Your task to perform on an android device: Toggle the flashlight Image 0: 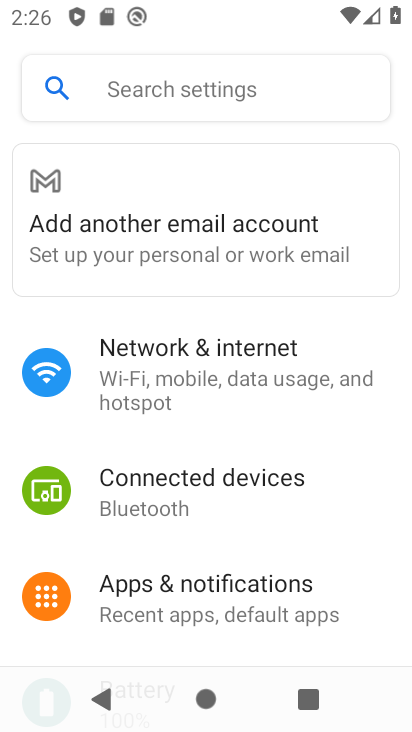
Step 0: drag from (195, 40) to (115, 369)
Your task to perform on an android device: Toggle the flashlight Image 1: 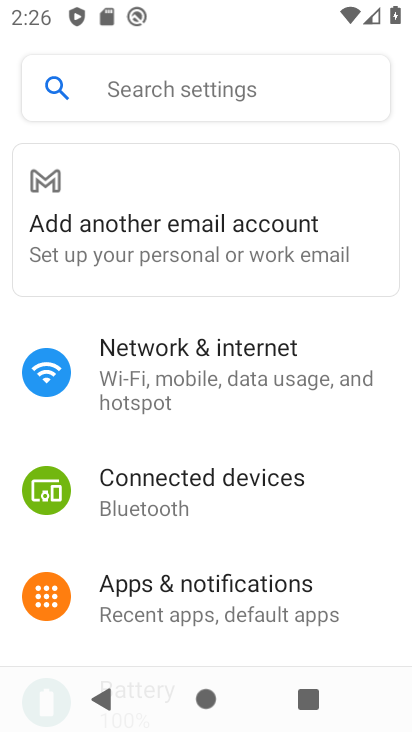
Step 1: task complete